Your task to perform on an android device: What is the recent news? Image 0: 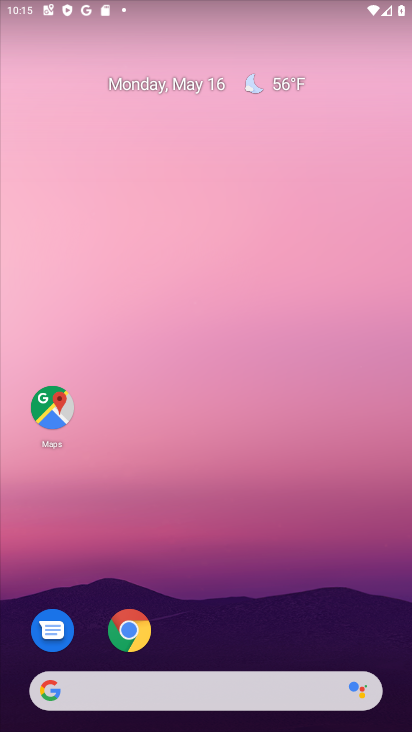
Step 0: click (171, 685)
Your task to perform on an android device: What is the recent news? Image 1: 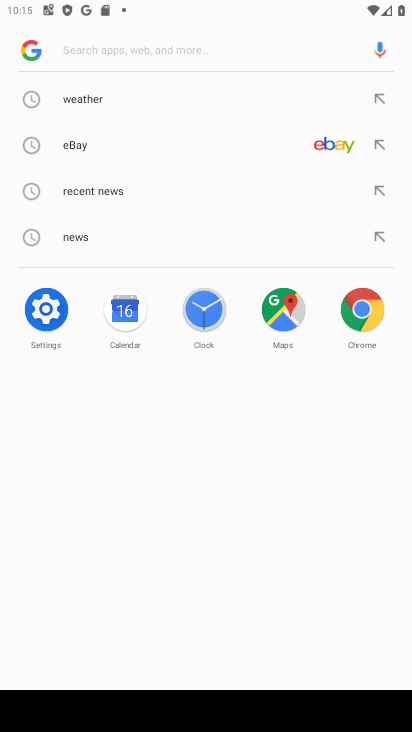
Step 1: click (113, 187)
Your task to perform on an android device: What is the recent news? Image 2: 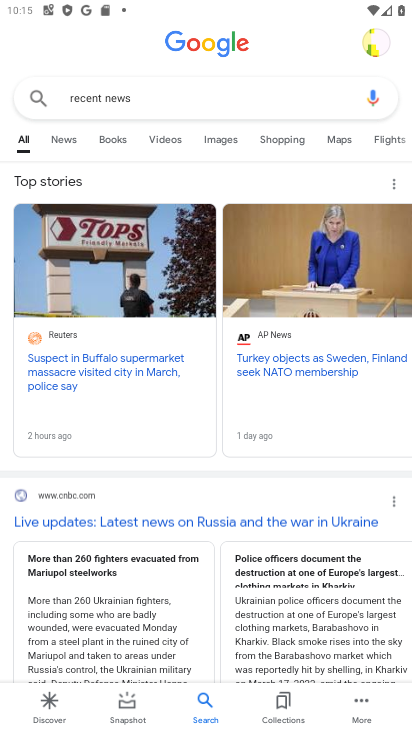
Step 2: task complete